Your task to perform on an android device: turn off data saver in the chrome app Image 0: 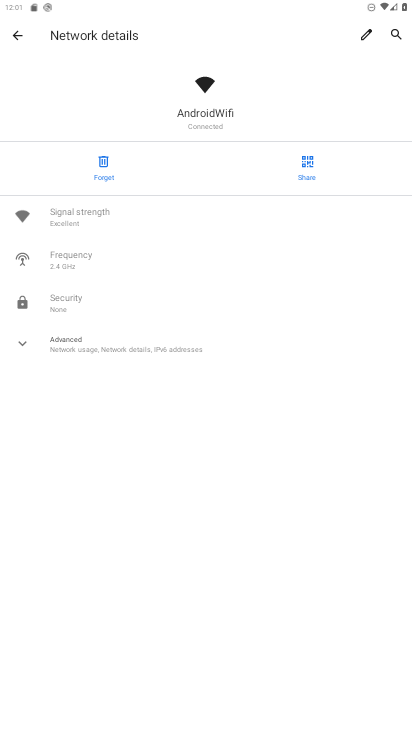
Step 0: press home button
Your task to perform on an android device: turn off data saver in the chrome app Image 1: 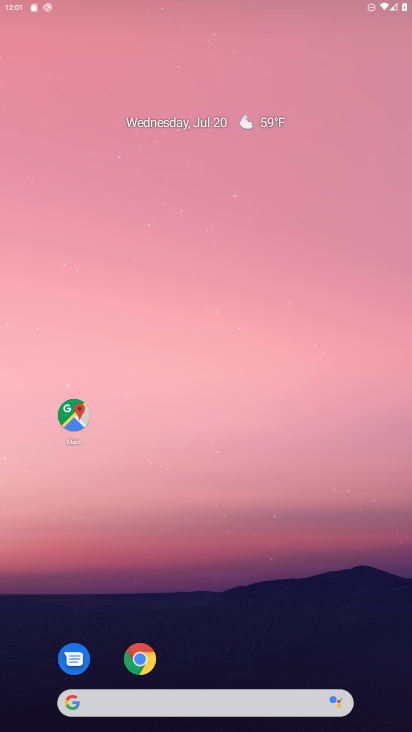
Step 1: drag from (314, 624) to (226, 46)
Your task to perform on an android device: turn off data saver in the chrome app Image 2: 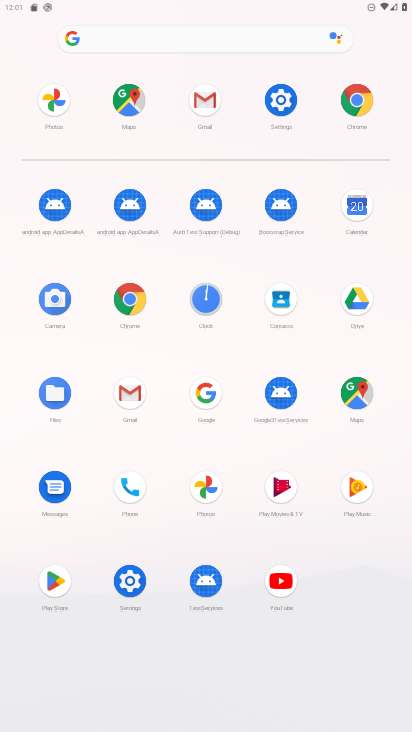
Step 2: click (126, 295)
Your task to perform on an android device: turn off data saver in the chrome app Image 3: 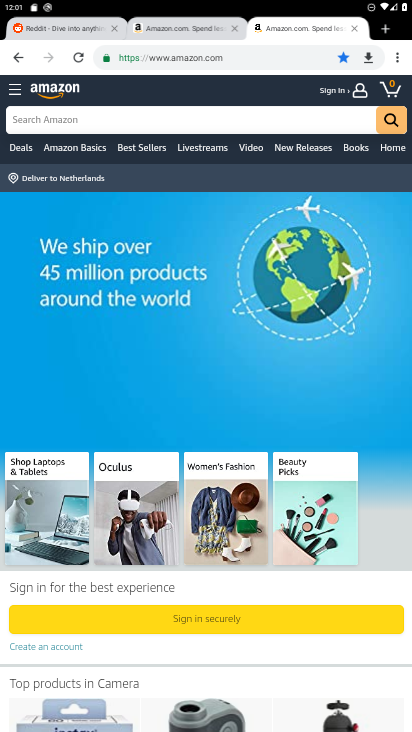
Step 3: drag from (396, 55) to (285, 418)
Your task to perform on an android device: turn off data saver in the chrome app Image 4: 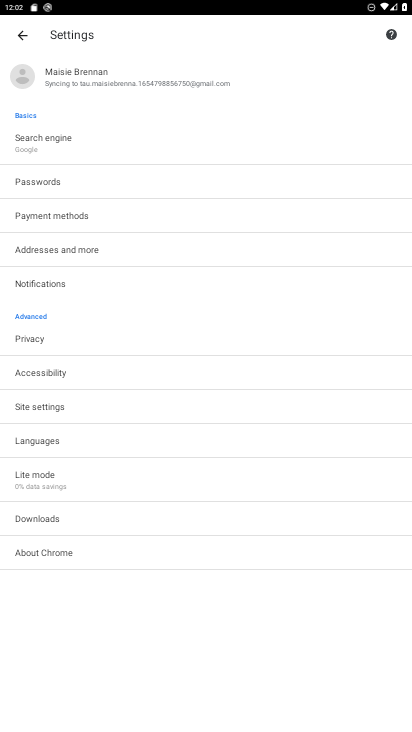
Step 4: click (31, 480)
Your task to perform on an android device: turn off data saver in the chrome app Image 5: 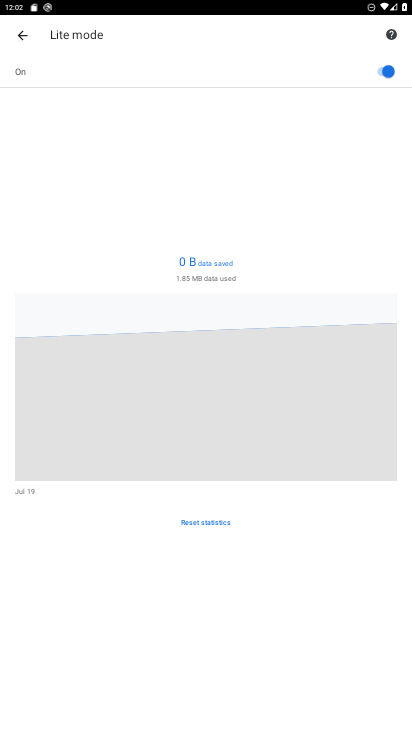
Step 5: click (384, 73)
Your task to perform on an android device: turn off data saver in the chrome app Image 6: 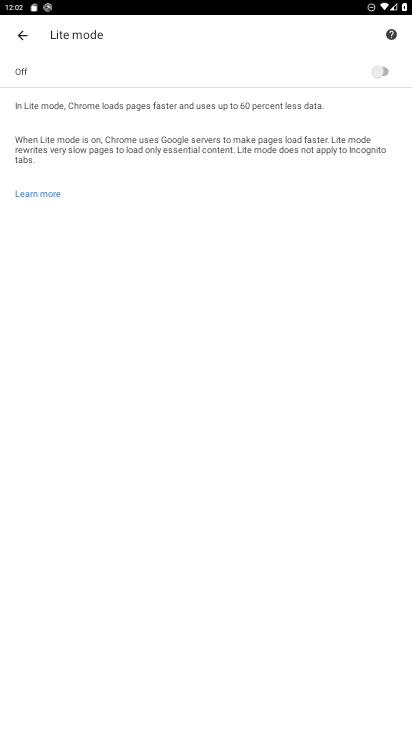
Step 6: task complete